Your task to perform on an android device: set default search engine in the chrome app Image 0: 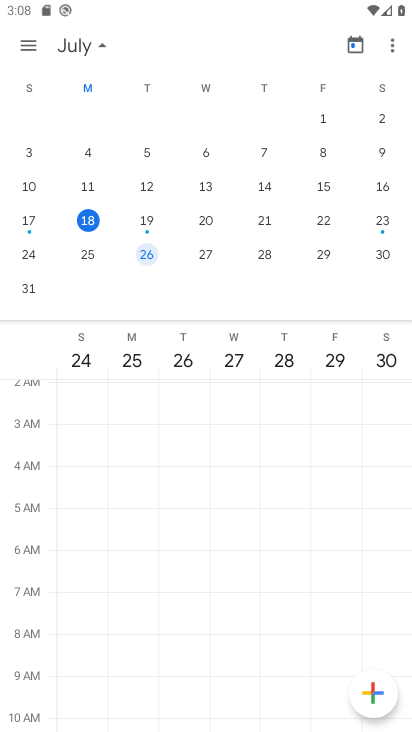
Step 0: press home button
Your task to perform on an android device: set default search engine in the chrome app Image 1: 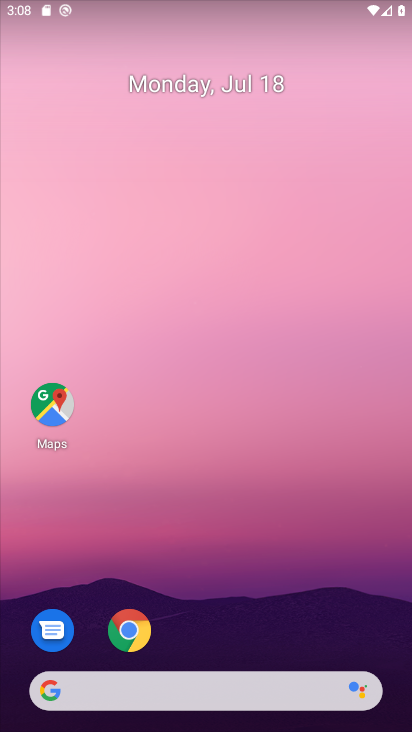
Step 1: drag from (358, 610) to (259, 88)
Your task to perform on an android device: set default search engine in the chrome app Image 2: 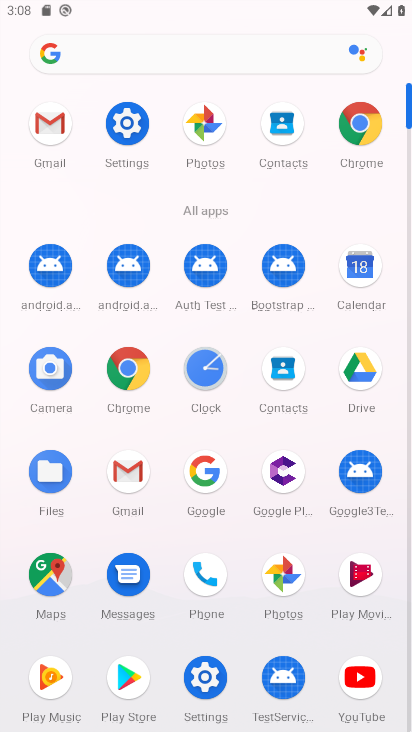
Step 2: click (362, 116)
Your task to perform on an android device: set default search engine in the chrome app Image 3: 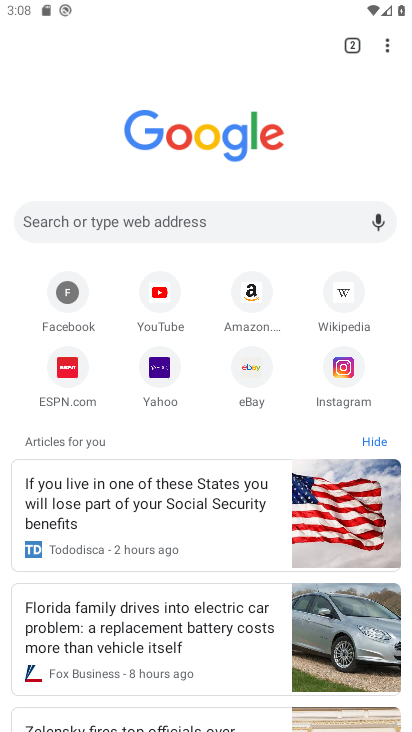
Step 3: click (389, 45)
Your task to perform on an android device: set default search engine in the chrome app Image 4: 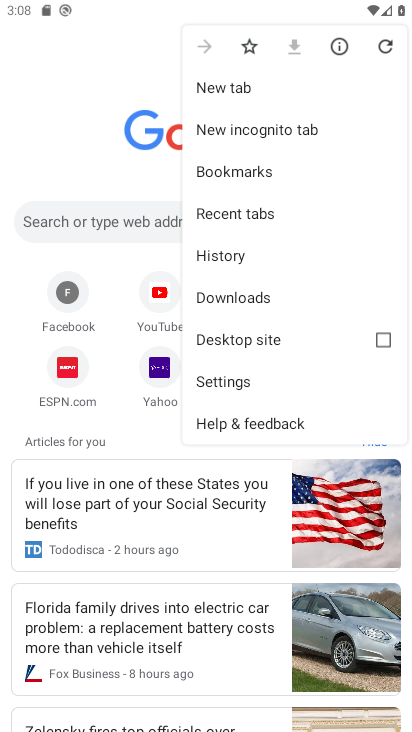
Step 4: click (284, 371)
Your task to perform on an android device: set default search engine in the chrome app Image 5: 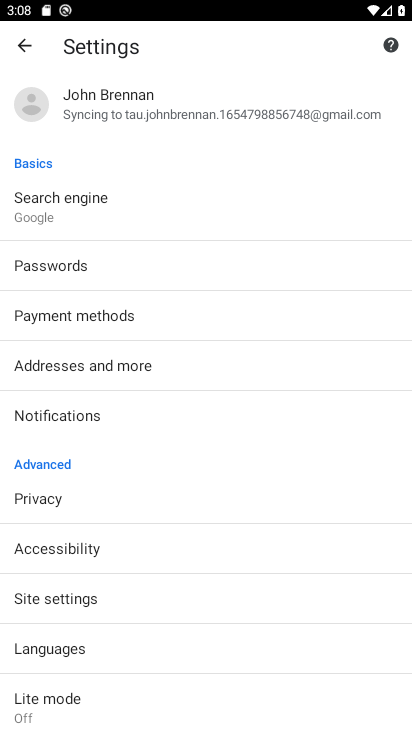
Step 5: click (173, 191)
Your task to perform on an android device: set default search engine in the chrome app Image 6: 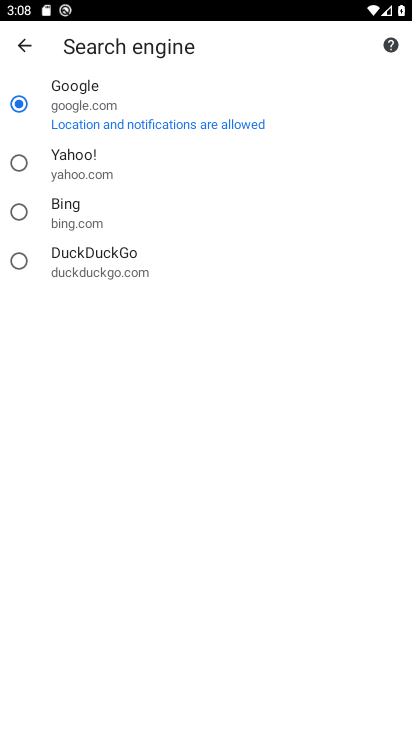
Step 6: click (151, 180)
Your task to perform on an android device: set default search engine in the chrome app Image 7: 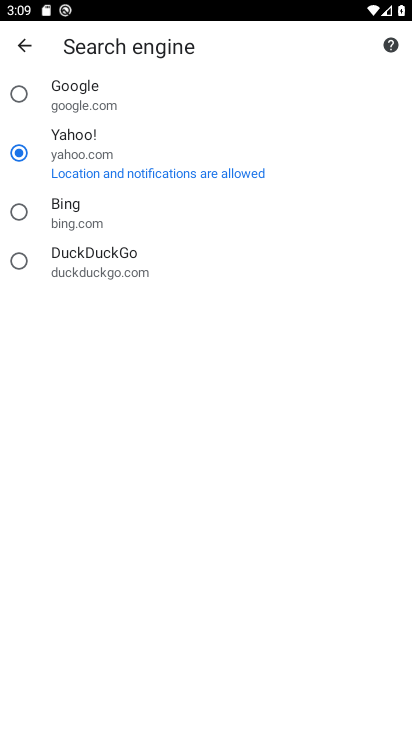
Step 7: task complete